Your task to perform on an android device: turn pop-ups on in chrome Image 0: 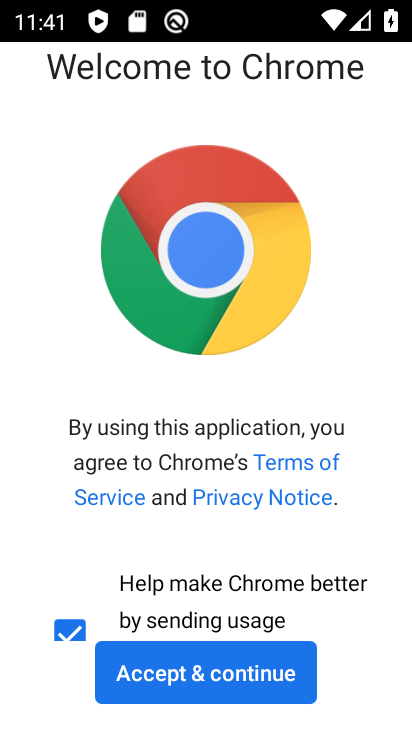
Step 0: click (231, 701)
Your task to perform on an android device: turn pop-ups on in chrome Image 1: 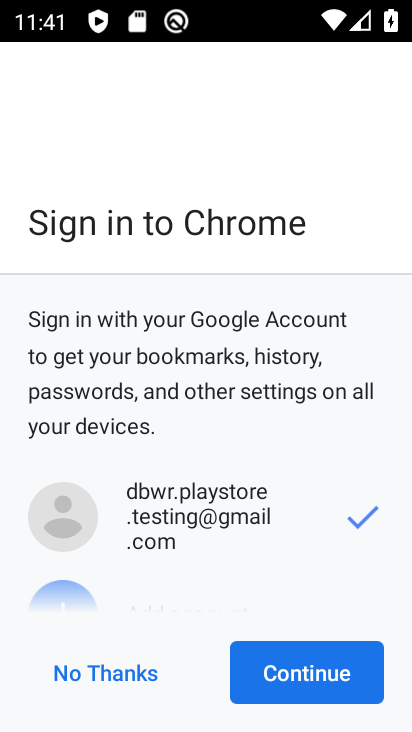
Step 1: click (296, 680)
Your task to perform on an android device: turn pop-ups on in chrome Image 2: 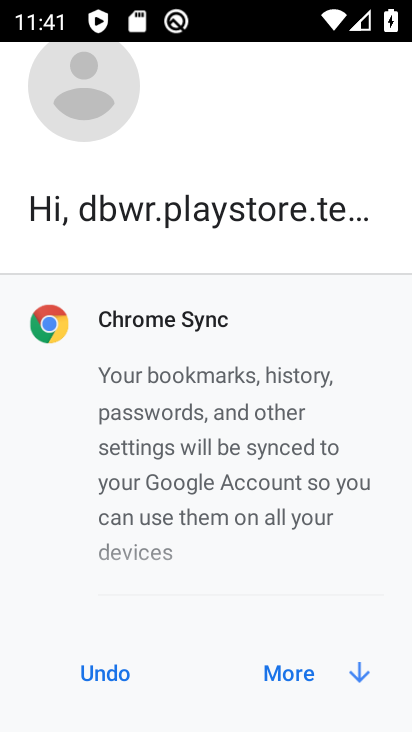
Step 2: click (296, 680)
Your task to perform on an android device: turn pop-ups on in chrome Image 3: 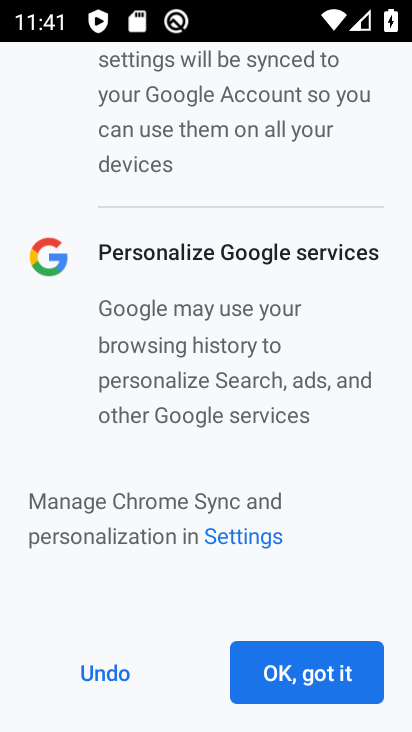
Step 3: click (296, 680)
Your task to perform on an android device: turn pop-ups on in chrome Image 4: 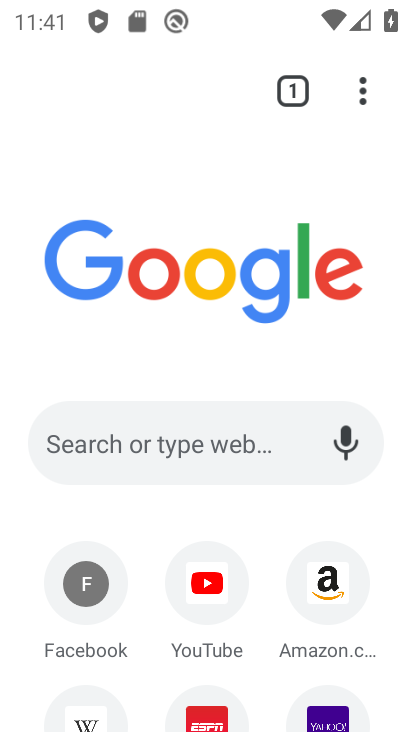
Step 4: drag from (359, 96) to (153, 555)
Your task to perform on an android device: turn pop-ups on in chrome Image 5: 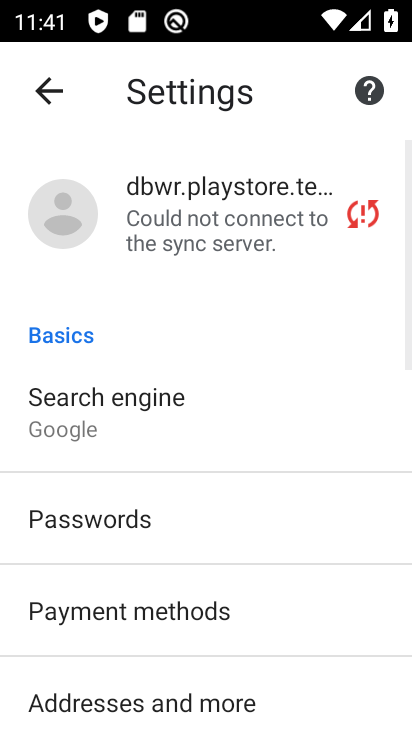
Step 5: drag from (320, 658) to (281, 362)
Your task to perform on an android device: turn pop-ups on in chrome Image 6: 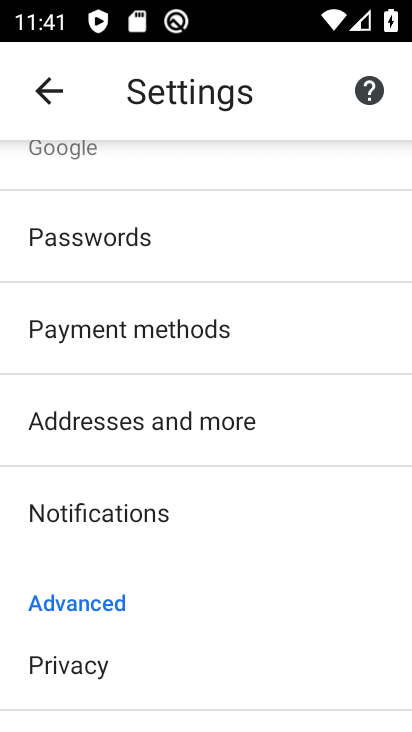
Step 6: drag from (226, 544) to (291, 297)
Your task to perform on an android device: turn pop-ups on in chrome Image 7: 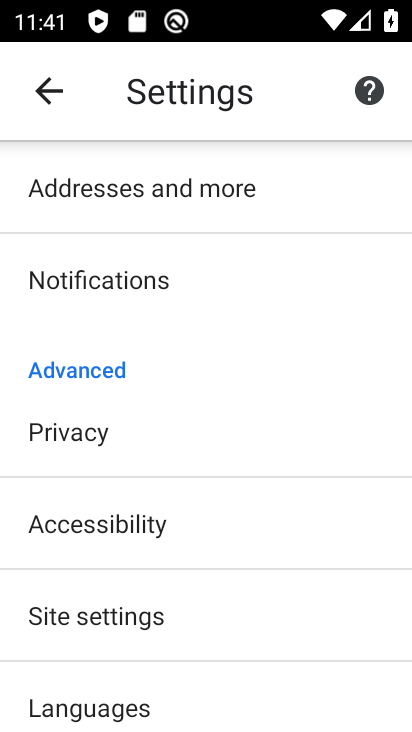
Step 7: drag from (209, 662) to (239, 318)
Your task to perform on an android device: turn pop-ups on in chrome Image 8: 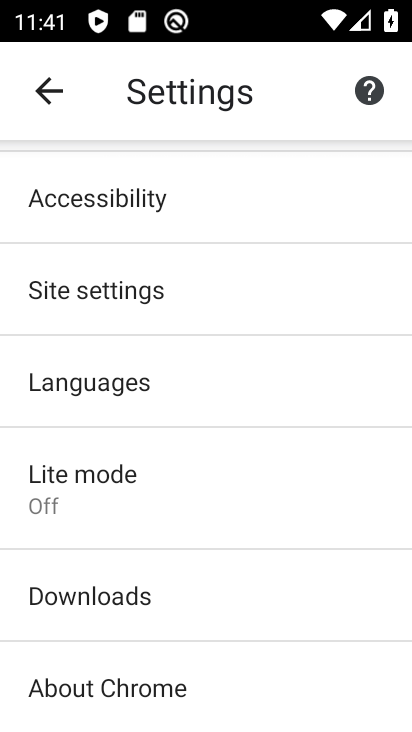
Step 8: click (138, 309)
Your task to perform on an android device: turn pop-ups on in chrome Image 9: 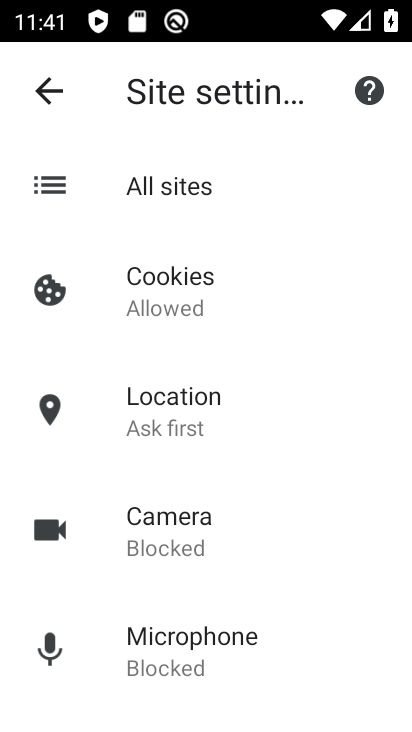
Step 9: drag from (272, 644) to (270, 383)
Your task to perform on an android device: turn pop-ups on in chrome Image 10: 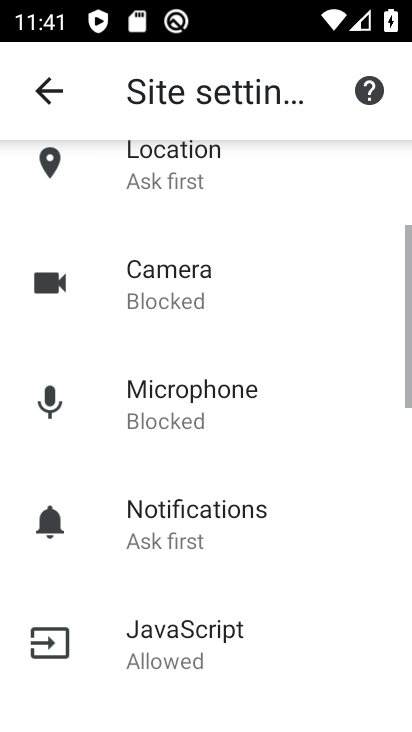
Step 10: drag from (267, 575) to (257, 316)
Your task to perform on an android device: turn pop-ups on in chrome Image 11: 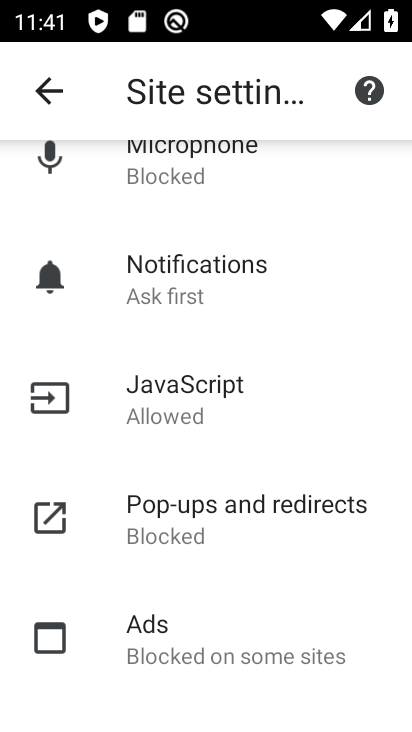
Step 11: click (265, 503)
Your task to perform on an android device: turn pop-ups on in chrome Image 12: 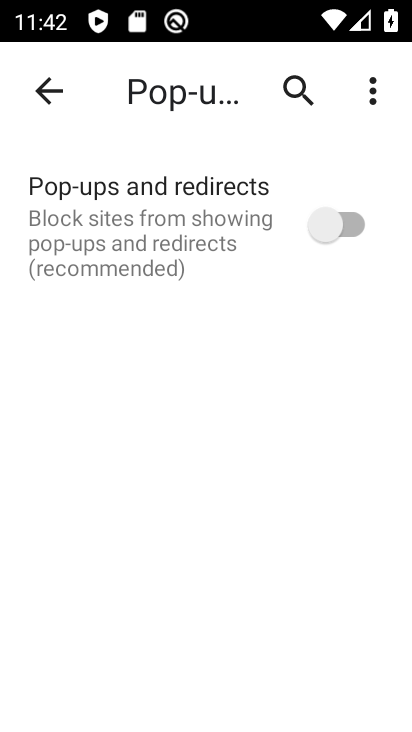
Step 12: click (357, 211)
Your task to perform on an android device: turn pop-ups on in chrome Image 13: 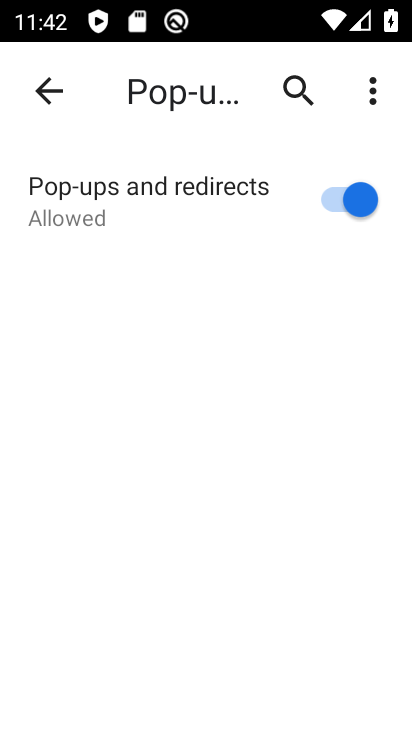
Step 13: task complete